Your task to perform on an android device: turn off picture-in-picture Image 0: 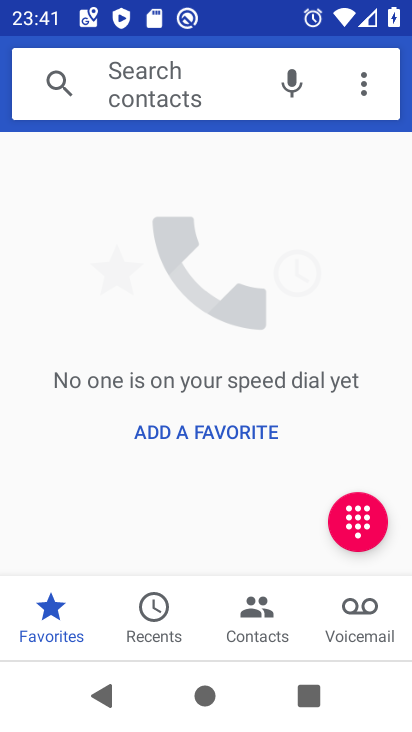
Step 0: press home button
Your task to perform on an android device: turn off picture-in-picture Image 1: 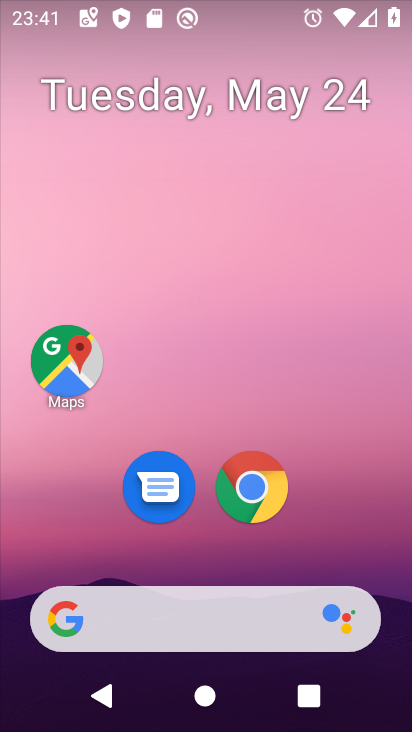
Step 1: drag from (223, 545) to (315, 97)
Your task to perform on an android device: turn off picture-in-picture Image 2: 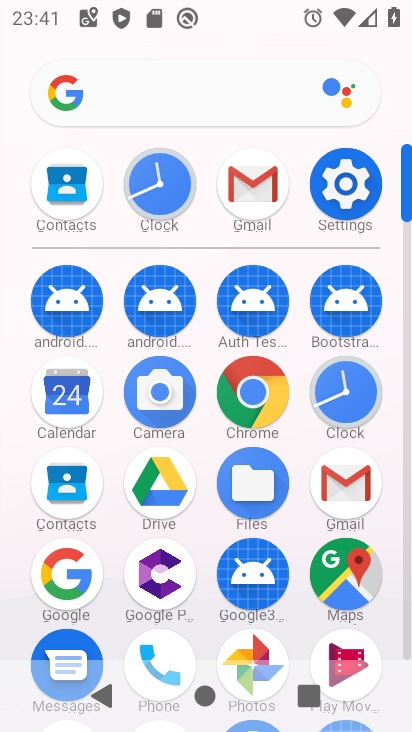
Step 2: click (341, 177)
Your task to perform on an android device: turn off picture-in-picture Image 3: 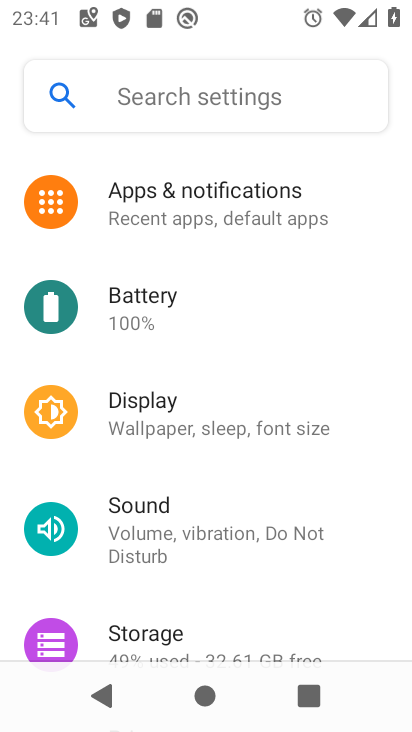
Step 3: click (191, 202)
Your task to perform on an android device: turn off picture-in-picture Image 4: 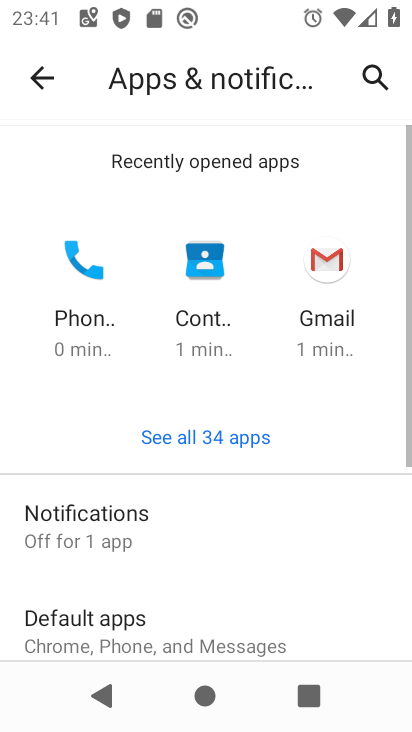
Step 4: drag from (172, 598) to (212, 318)
Your task to perform on an android device: turn off picture-in-picture Image 5: 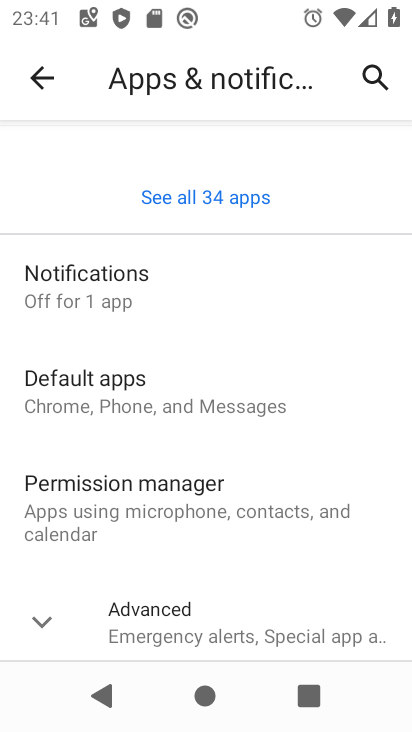
Step 5: drag from (190, 573) to (379, 96)
Your task to perform on an android device: turn off picture-in-picture Image 6: 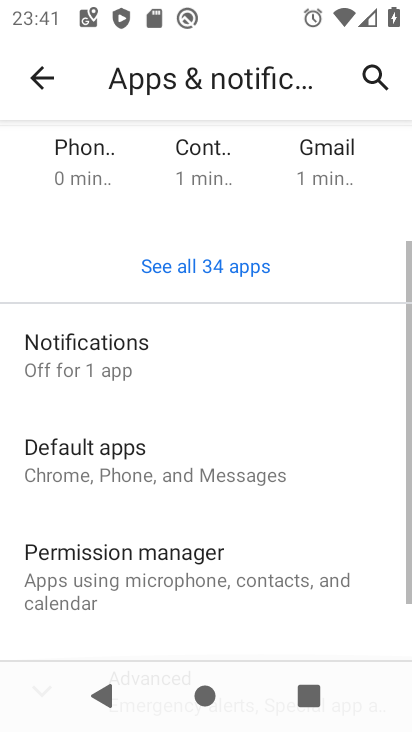
Step 6: click (173, 597)
Your task to perform on an android device: turn off picture-in-picture Image 7: 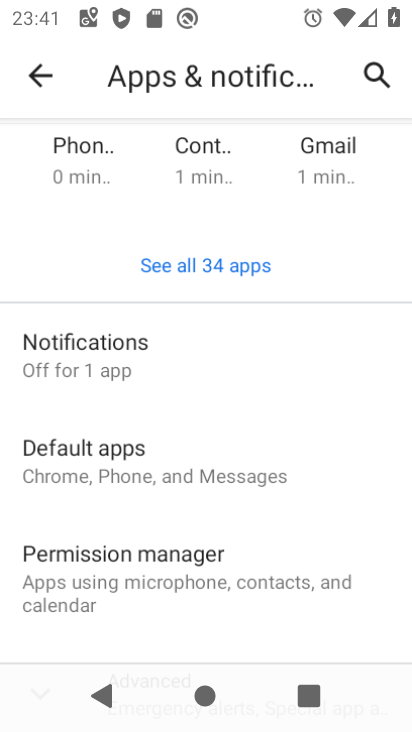
Step 7: drag from (172, 599) to (238, 158)
Your task to perform on an android device: turn off picture-in-picture Image 8: 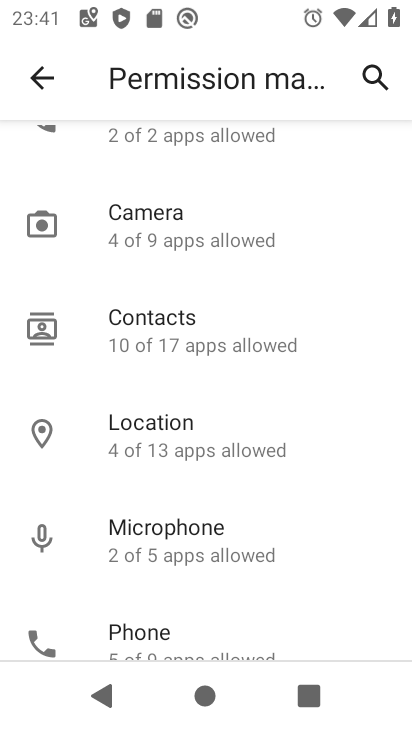
Step 8: click (64, 70)
Your task to perform on an android device: turn off picture-in-picture Image 9: 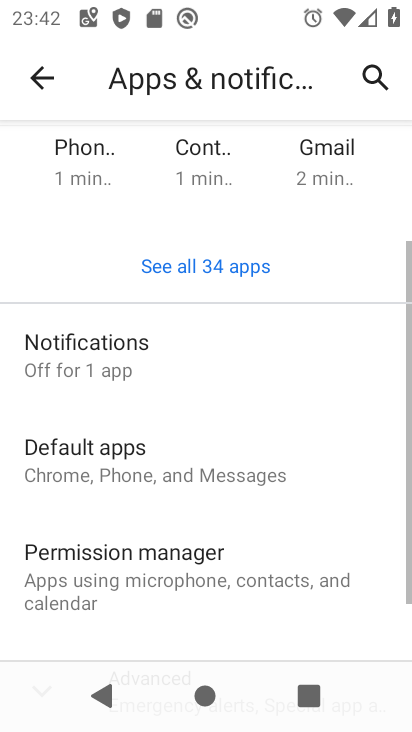
Step 9: drag from (188, 599) to (346, 96)
Your task to perform on an android device: turn off picture-in-picture Image 10: 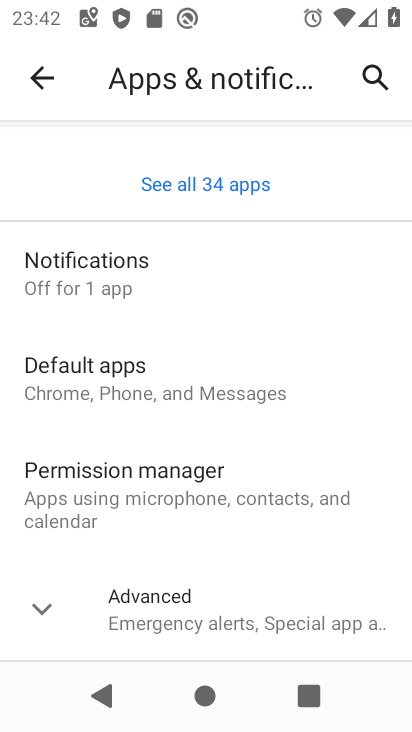
Step 10: click (201, 626)
Your task to perform on an android device: turn off picture-in-picture Image 11: 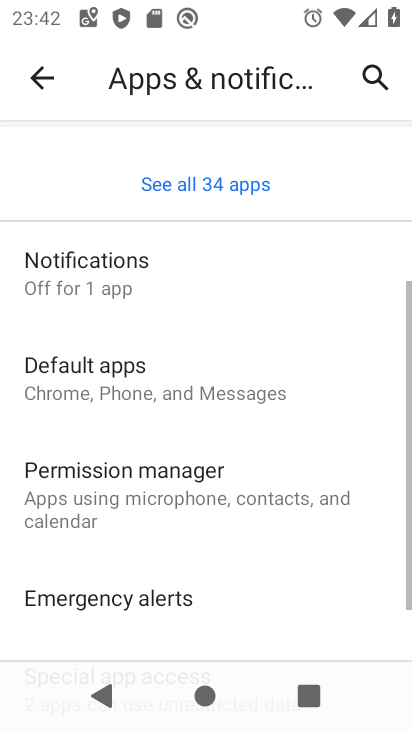
Step 11: drag from (169, 616) to (267, 80)
Your task to perform on an android device: turn off picture-in-picture Image 12: 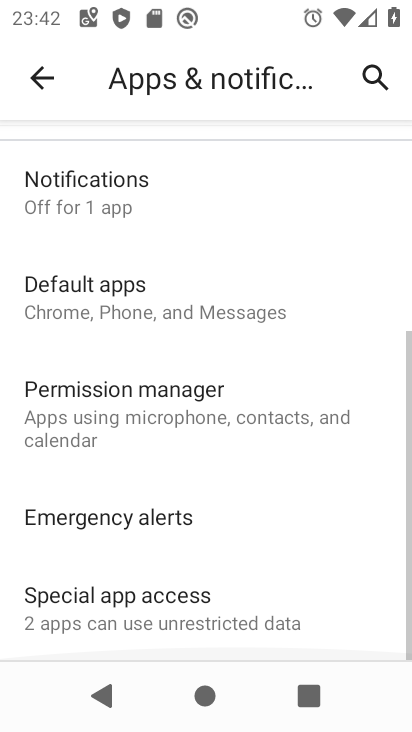
Step 12: click (111, 620)
Your task to perform on an android device: turn off picture-in-picture Image 13: 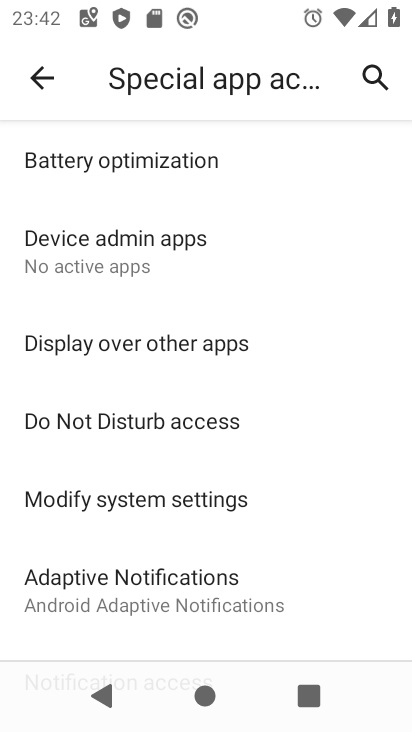
Step 13: drag from (151, 588) to (249, 157)
Your task to perform on an android device: turn off picture-in-picture Image 14: 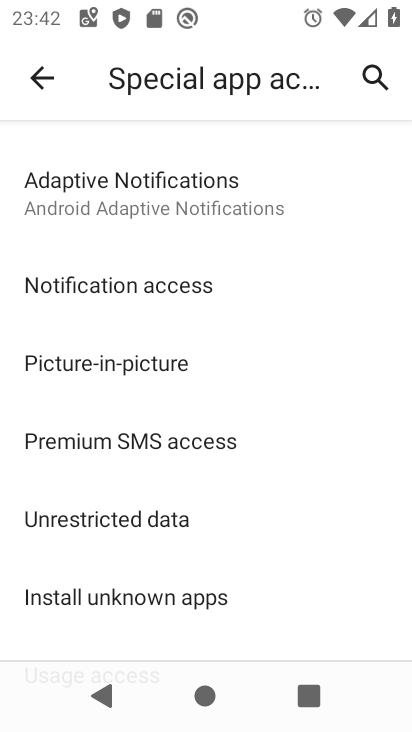
Step 14: click (92, 358)
Your task to perform on an android device: turn off picture-in-picture Image 15: 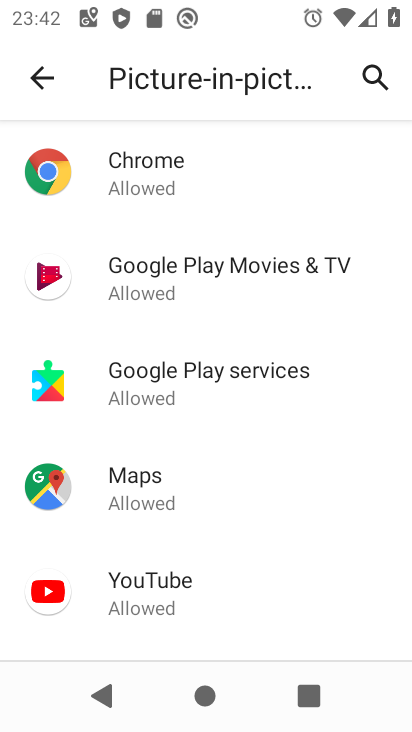
Step 15: click (151, 184)
Your task to perform on an android device: turn off picture-in-picture Image 16: 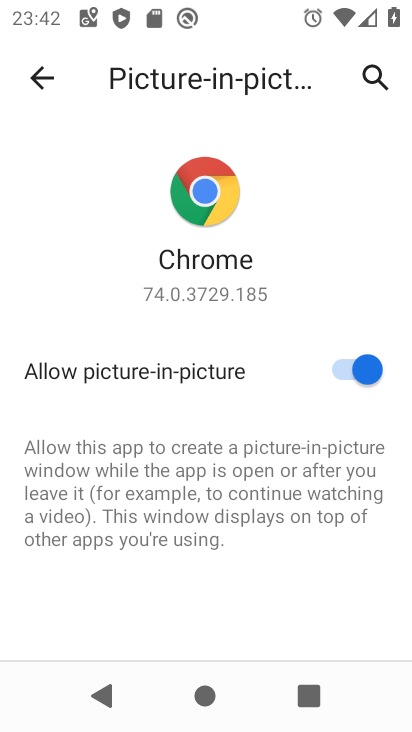
Step 16: click (361, 366)
Your task to perform on an android device: turn off picture-in-picture Image 17: 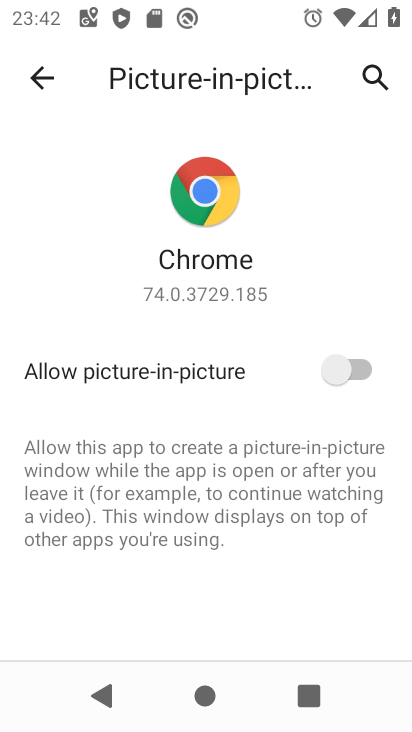
Step 17: task complete